Your task to perform on an android device: Toggle the flashlight Image 0: 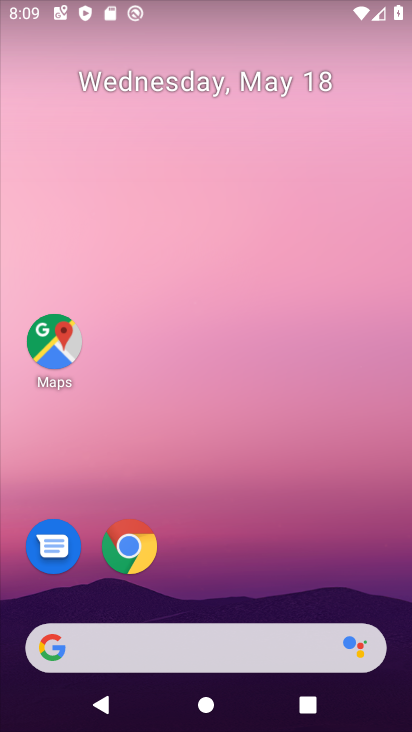
Step 0: drag from (215, 685) to (208, 229)
Your task to perform on an android device: Toggle the flashlight Image 1: 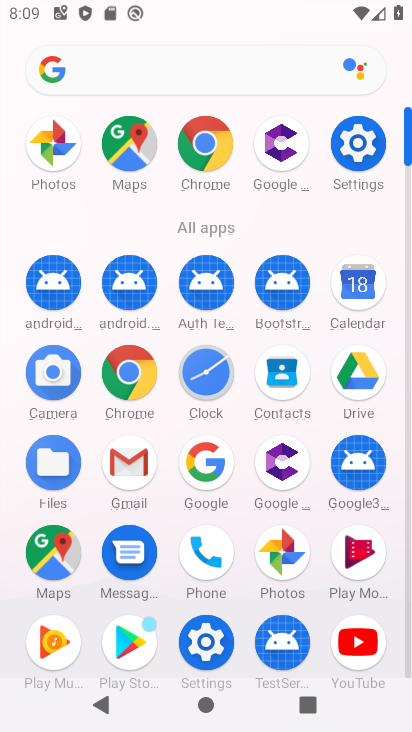
Step 1: click (349, 152)
Your task to perform on an android device: Toggle the flashlight Image 2: 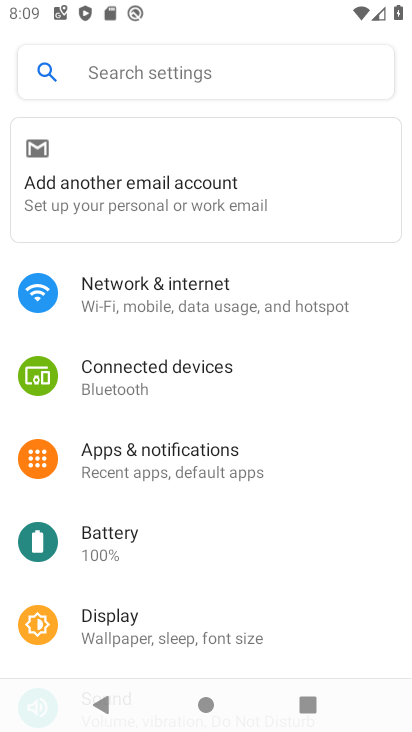
Step 2: click (172, 57)
Your task to perform on an android device: Toggle the flashlight Image 3: 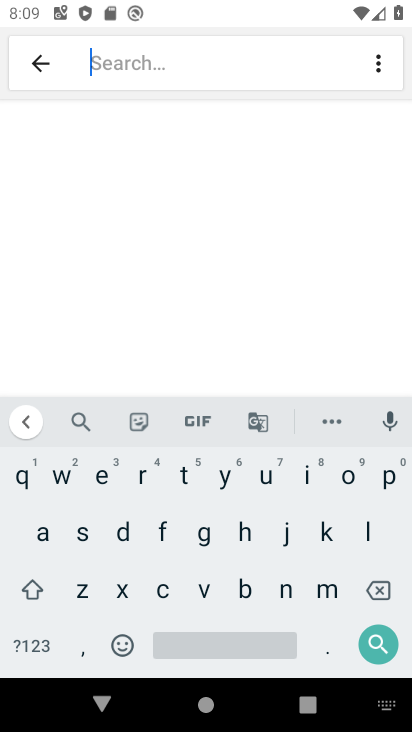
Step 3: click (158, 526)
Your task to perform on an android device: Toggle the flashlight Image 4: 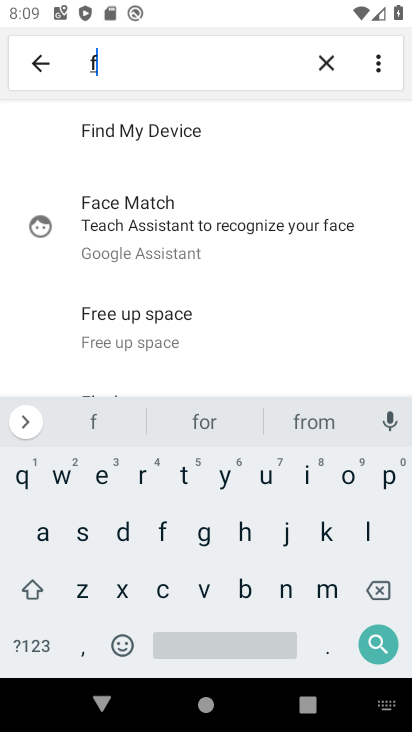
Step 4: click (369, 529)
Your task to perform on an android device: Toggle the flashlight Image 5: 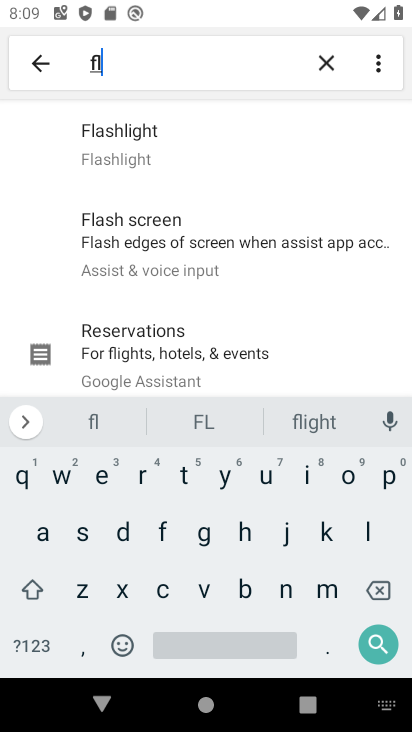
Step 5: click (118, 138)
Your task to perform on an android device: Toggle the flashlight Image 6: 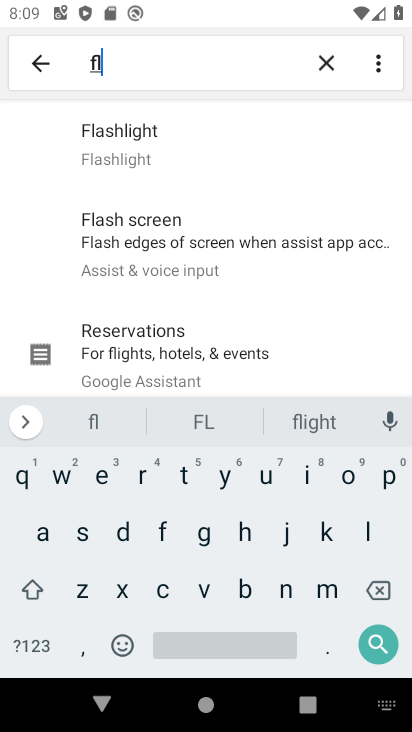
Step 6: task complete